Your task to perform on an android device: Do I have any events tomorrow? Image 0: 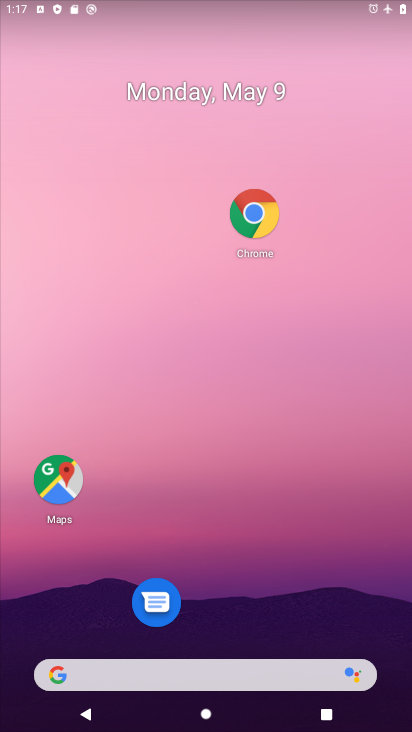
Step 0: drag from (267, 540) to (218, 98)
Your task to perform on an android device: Do I have any events tomorrow? Image 1: 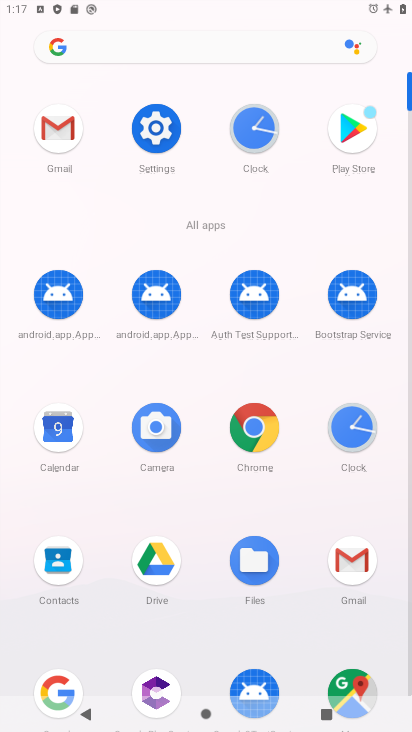
Step 1: click (166, 148)
Your task to perform on an android device: Do I have any events tomorrow? Image 2: 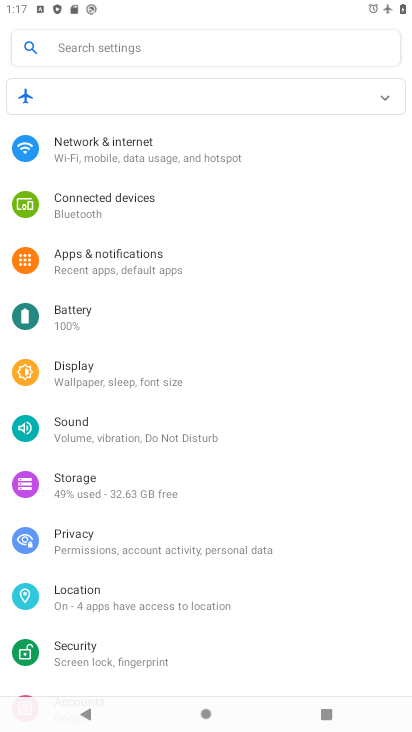
Step 2: press home button
Your task to perform on an android device: Do I have any events tomorrow? Image 3: 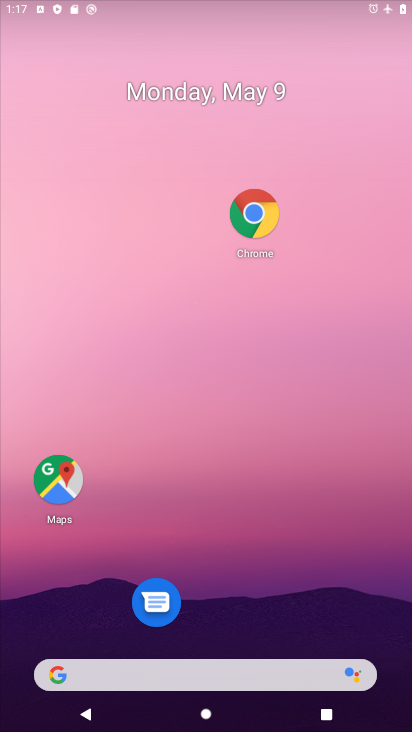
Step 3: drag from (304, 515) to (289, 234)
Your task to perform on an android device: Do I have any events tomorrow? Image 4: 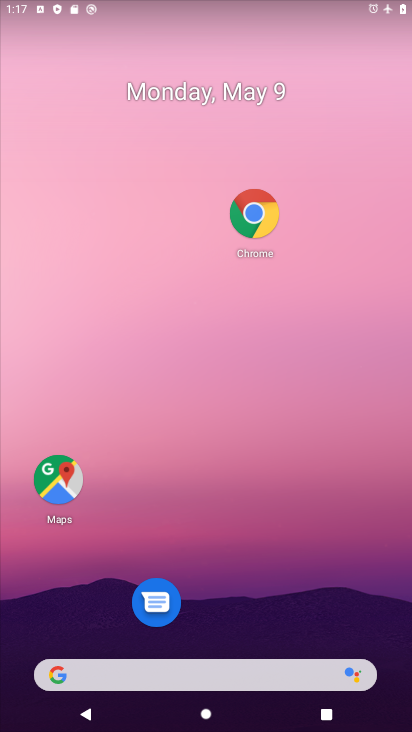
Step 4: drag from (283, 562) to (311, 86)
Your task to perform on an android device: Do I have any events tomorrow? Image 5: 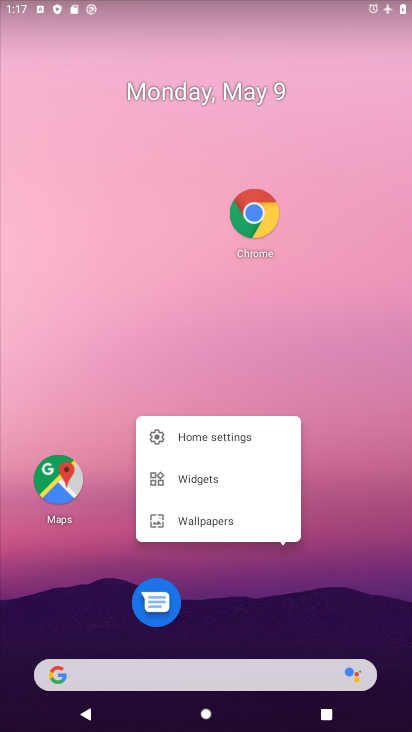
Step 5: click (321, 394)
Your task to perform on an android device: Do I have any events tomorrow? Image 6: 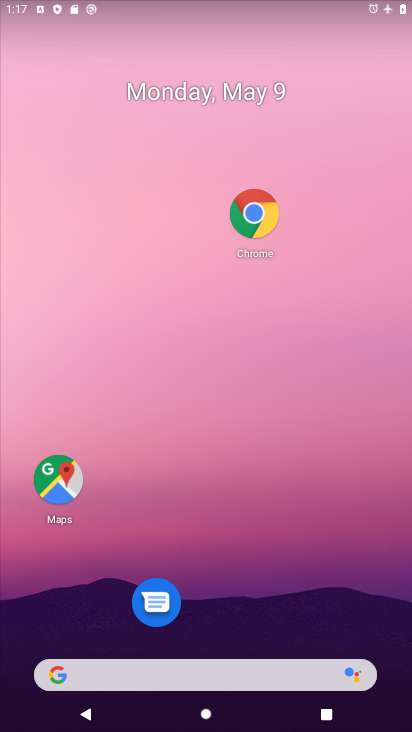
Step 6: drag from (275, 530) to (236, 43)
Your task to perform on an android device: Do I have any events tomorrow? Image 7: 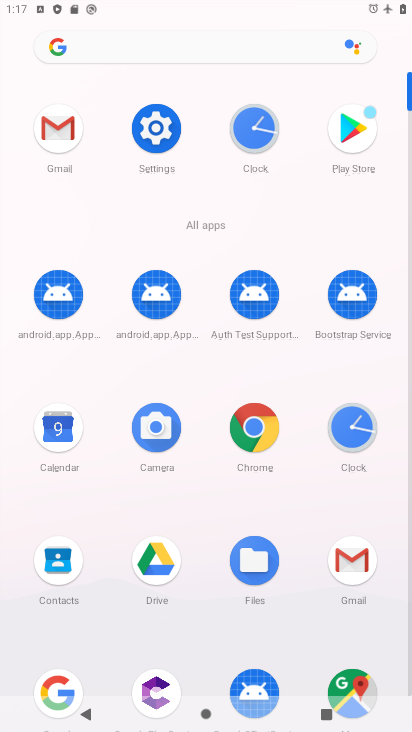
Step 7: click (407, 660)
Your task to perform on an android device: Do I have any events tomorrow? Image 8: 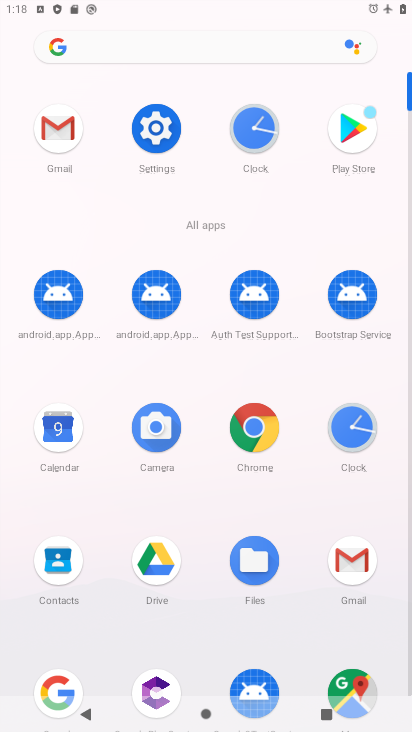
Step 8: click (407, 660)
Your task to perform on an android device: Do I have any events tomorrow? Image 9: 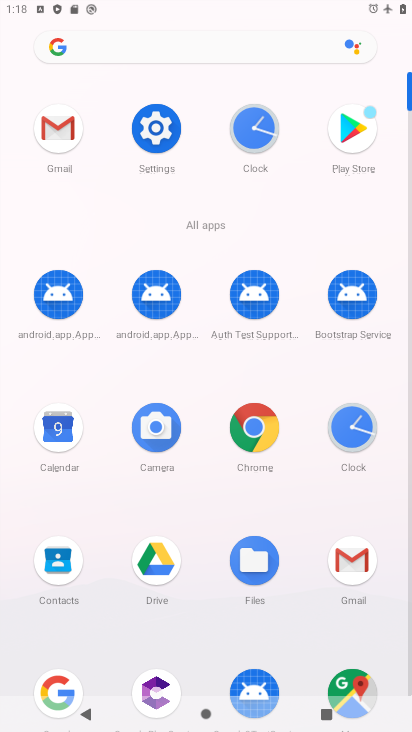
Step 9: click (408, 660)
Your task to perform on an android device: Do I have any events tomorrow? Image 10: 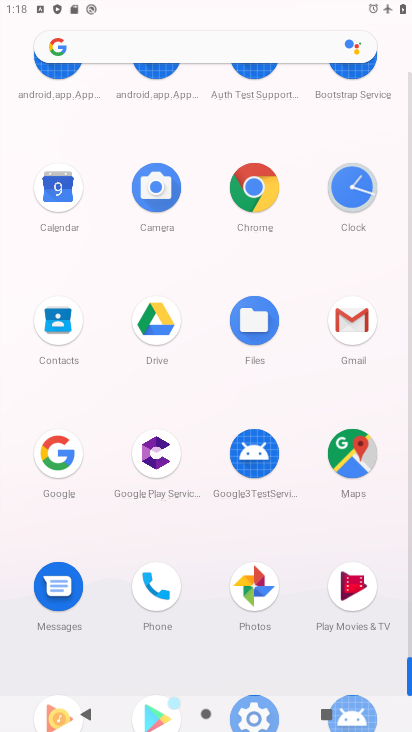
Step 10: click (408, 660)
Your task to perform on an android device: Do I have any events tomorrow? Image 11: 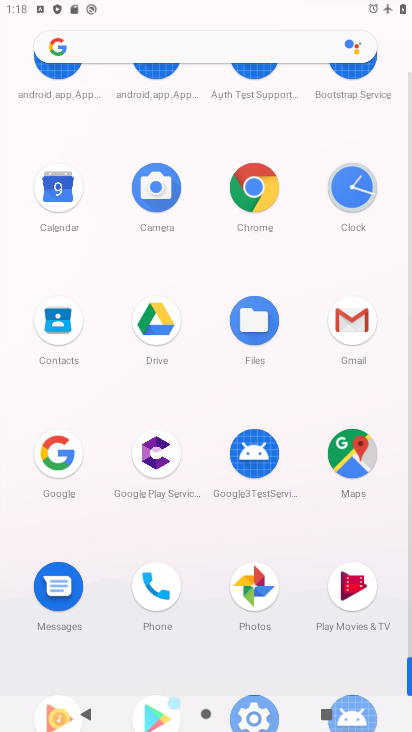
Step 11: click (72, 187)
Your task to perform on an android device: Do I have any events tomorrow? Image 12: 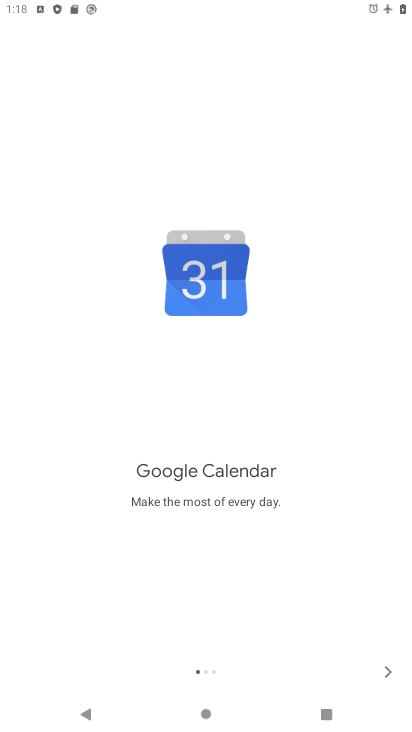
Step 12: click (393, 681)
Your task to perform on an android device: Do I have any events tomorrow? Image 13: 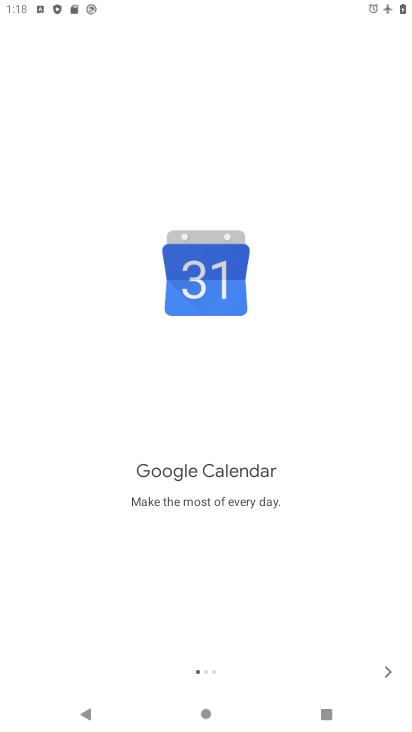
Step 13: click (393, 681)
Your task to perform on an android device: Do I have any events tomorrow? Image 14: 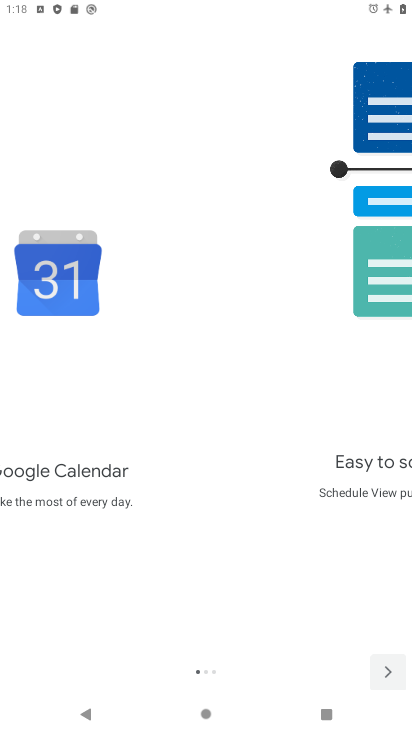
Step 14: click (393, 681)
Your task to perform on an android device: Do I have any events tomorrow? Image 15: 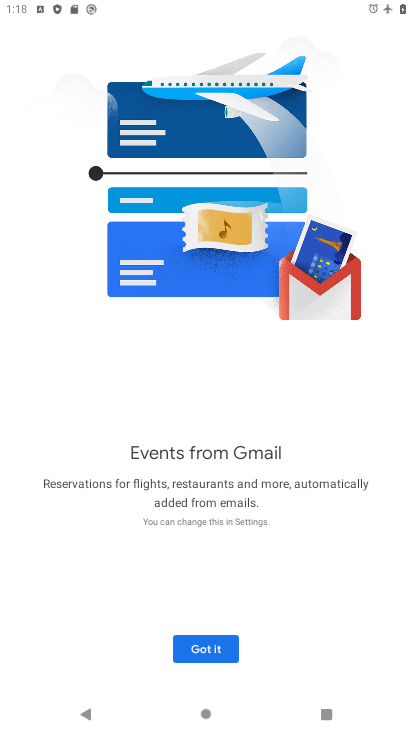
Step 15: click (221, 654)
Your task to perform on an android device: Do I have any events tomorrow? Image 16: 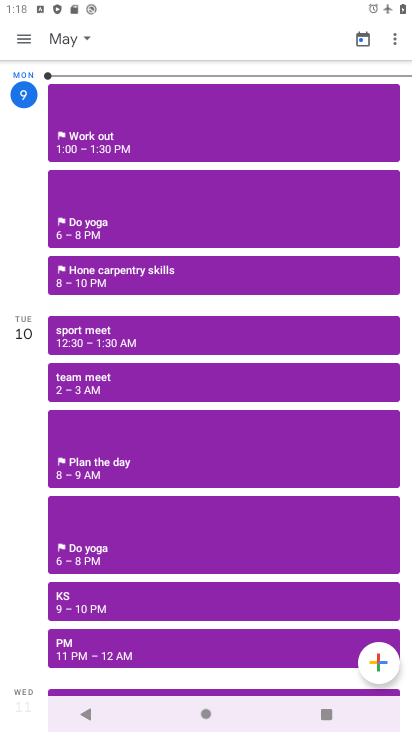
Step 16: task complete